Your task to perform on an android device: delete a single message in the gmail app Image 0: 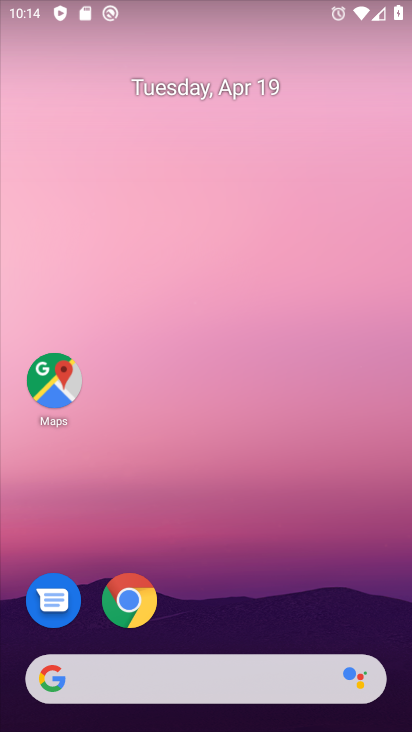
Step 0: drag from (269, 611) to (278, 196)
Your task to perform on an android device: delete a single message in the gmail app Image 1: 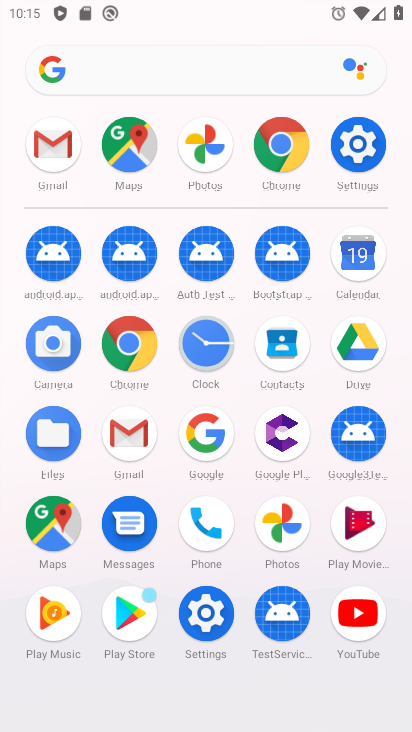
Step 1: click (129, 446)
Your task to perform on an android device: delete a single message in the gmail app Image 2: 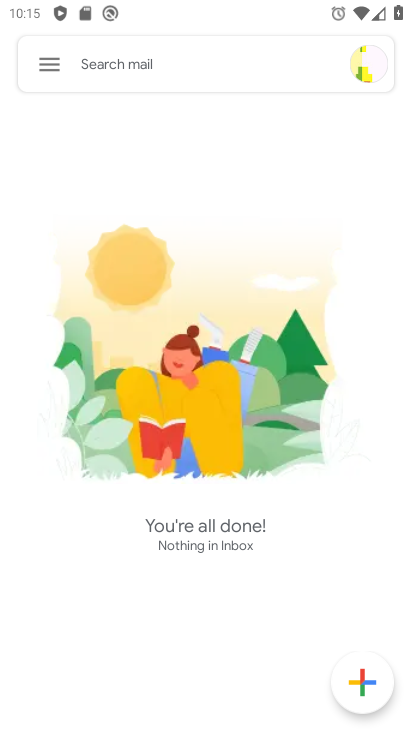
Step 2: task complete